Your task to perform on an android device: What's the weather going to be this weekend? Image 0: 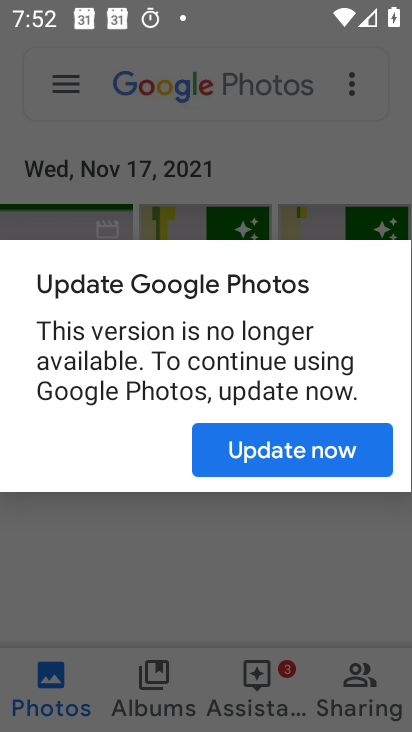
Step 0: press home button
Your task to perform on an android device: What's the weather going to be this weekend? Image 1: 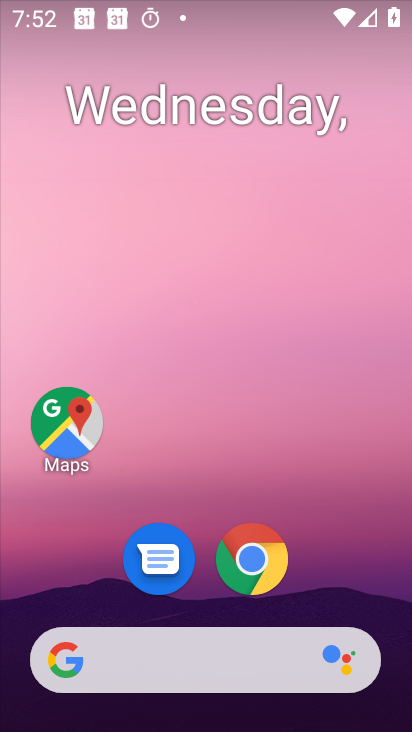
Step 1: click (109, 665)
Your task to perform on an android device: What's the weather going to be this weekend? Image 2: 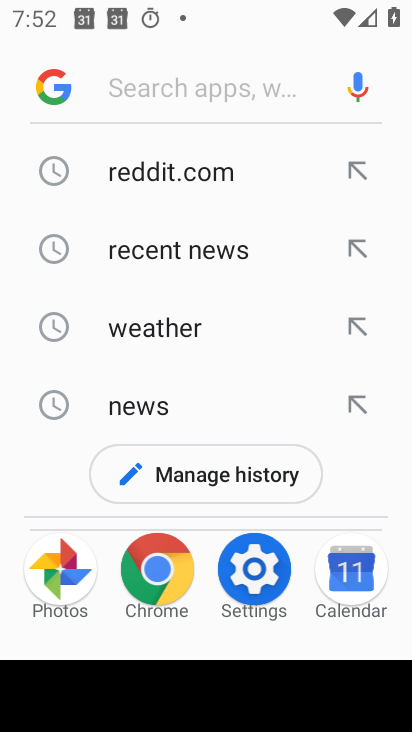
Step 2: click (128, 326)
Your task to perform on an android device: What's the weather going to be this weekend? Image 3: 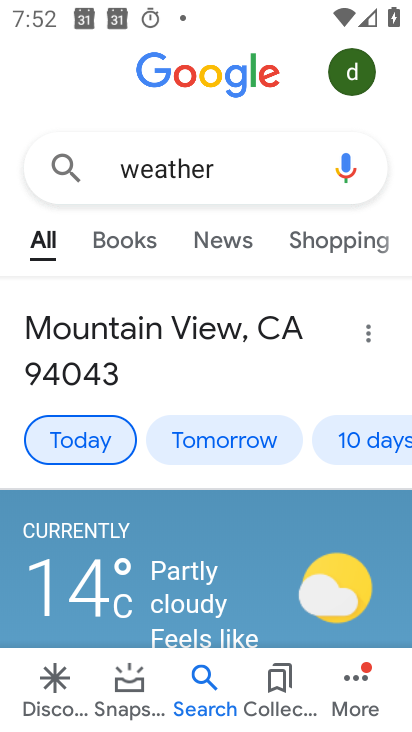
Step 3: click (346, 451)
Your task to perform on an android device: What's the weather going to be this weekend? Image 4: 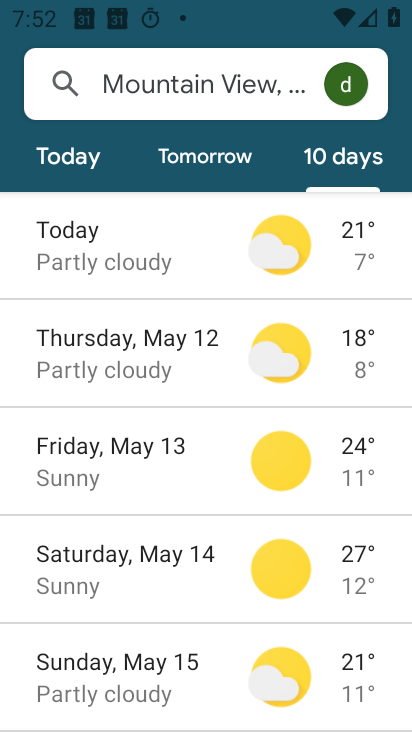
Step 4: task complete